Your task to perform on an android device: Check the news Image 0: 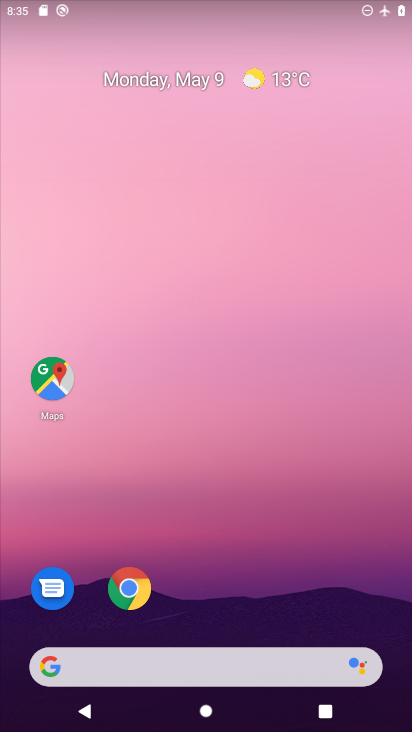
Step 0: drag from (284, 626) to (295, 208)
Your task to perform on an android device: Check the news Image 1: 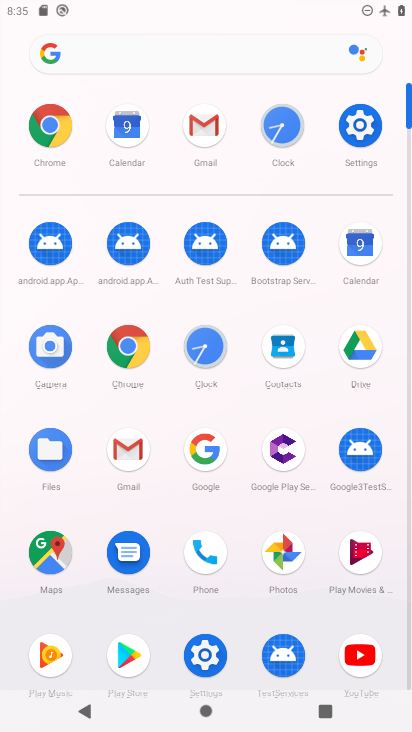
Step 1: click (58, 145)
Your task to perform on an android device: Check the news Image 2: 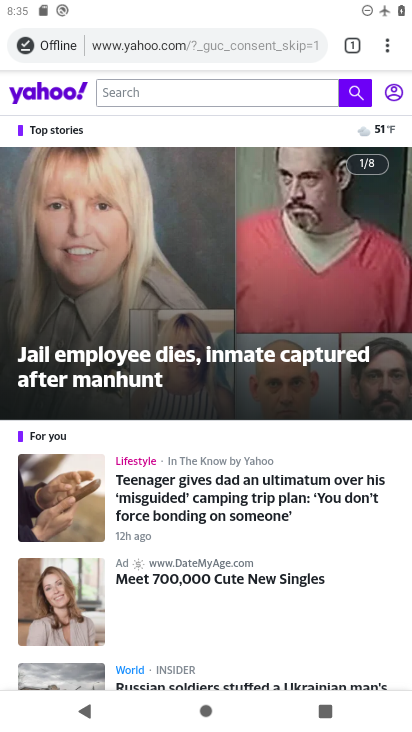
Step 2: task complete